Your task to perform on an android device: Search for a 3d printer on aliexpress Image 0: 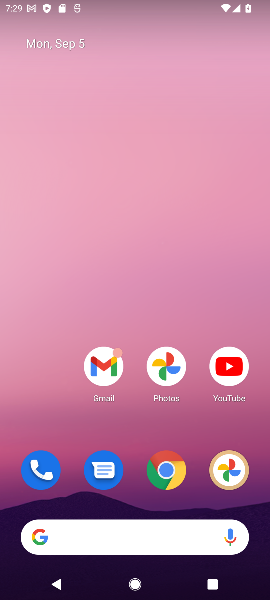
Step 0: drag from (153, 514) to (158, 61)
Your task to perform on an android device: Search for a 3d printer on aliexpress Image 1: 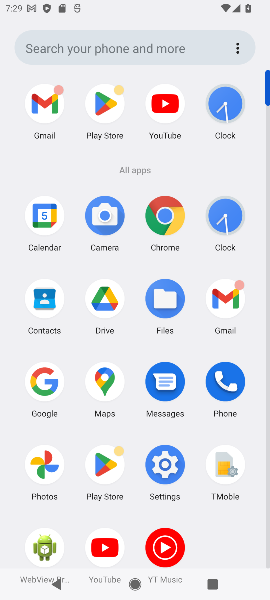
Step 1: click (53, 378)
Your task to perform on an android device: Search for a 3d printer on aliexpress Image 2: 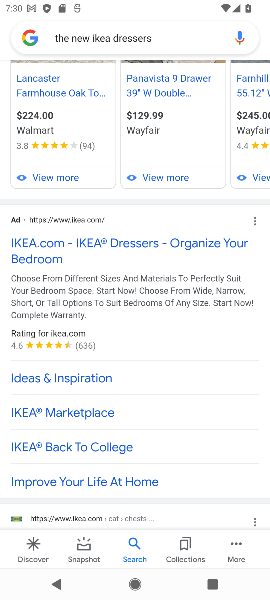
Step 2: click (95, 37)
Your task to perform on an android device: Search for a 3d printer on aliexpress Image 3: 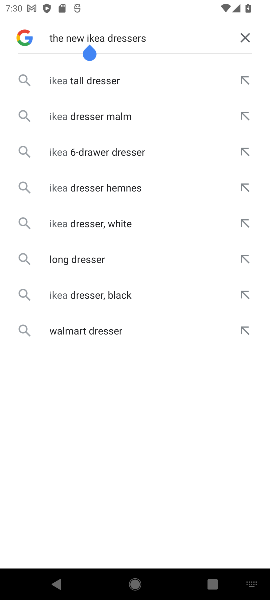
Step 3: click (242, 40)
Your task to perform on an android device: Search for a 3d printer on aliexpress Image 4: 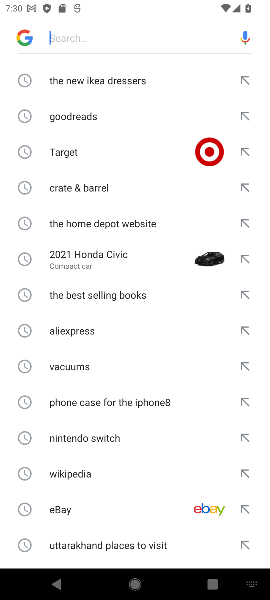
Step 4: type "3d printer on aliexpress"
Your task to perform on an android device: Search for a 3d printer on aliexpress Image 5: 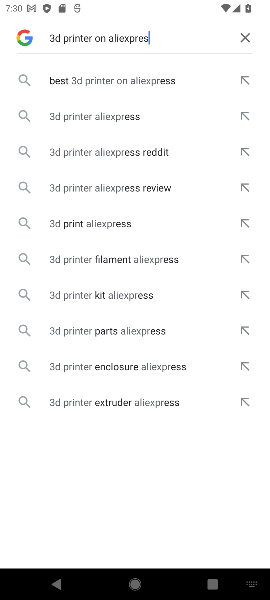
Step 5: type ""
Your task to perform on an android device: Search for a 3d printer on aliexpress Image 6: 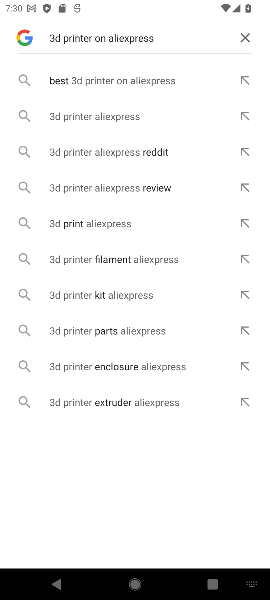
Step 6: click (65, 117)
Your task to perform on an android device: Search for a 3d printer on aliexpress Image 7: 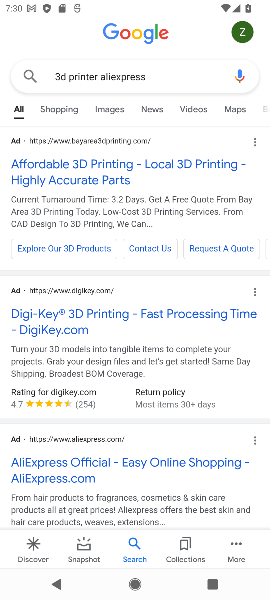
Step 7: task complete